Your task to perform on an android device: What is the news today? Image 0: 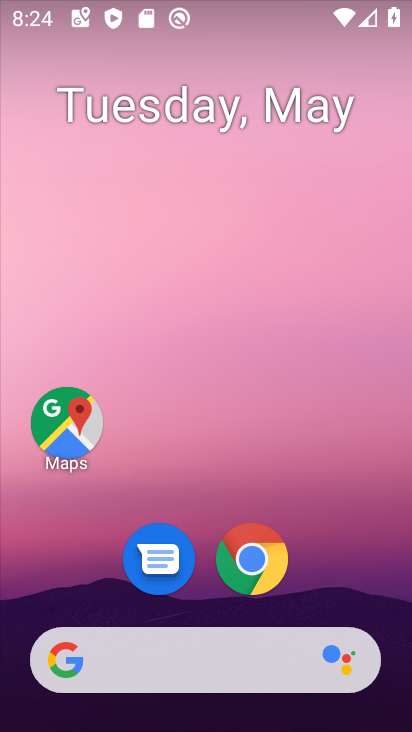
Step 0: drag from (22, 286) to (401, 314)
Your task to perform on an android device: What is the news today? Image 1: 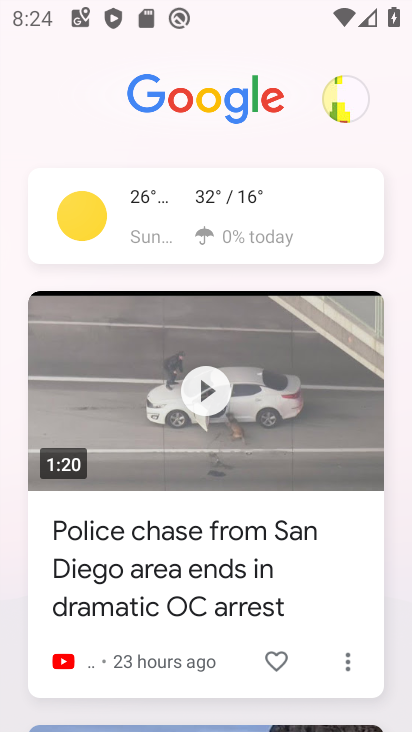
Step 1: task complete